Your task to perform on an android device: Open CNN.com Image 0: 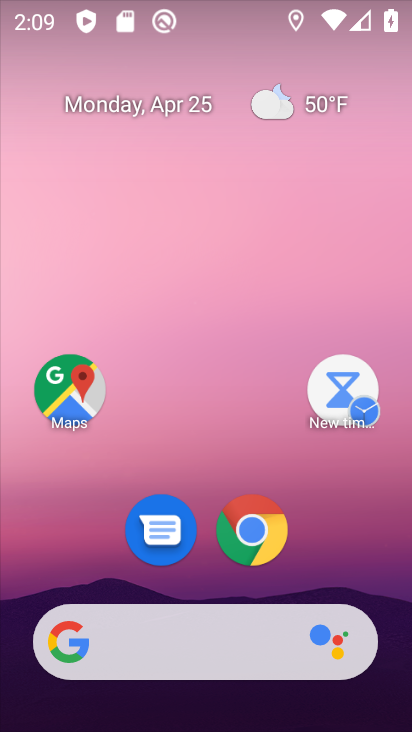
Step 0: drag from (201, 600) to (272, 12)
Your task to perform on an android device: Open CNN.com Image 1: 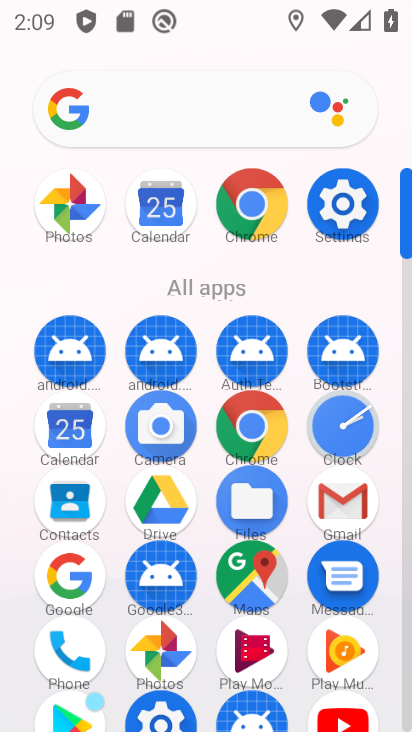
Step 1: click (244, 423)
Your task to perform on an android device: Open CNN.com Image 2: 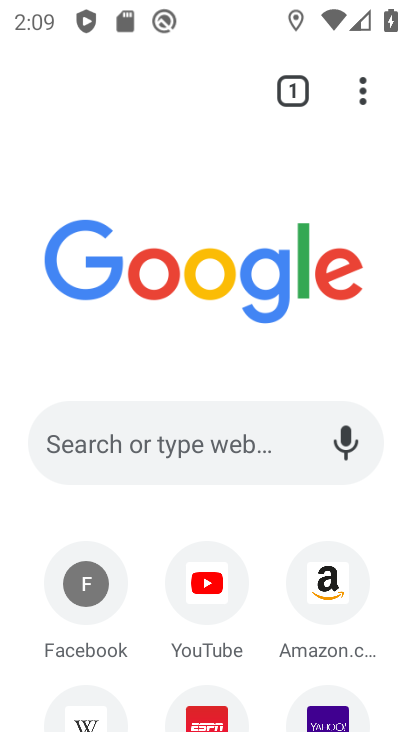
Step 2: click (188, 465)
Your task to perform on an android device: Open CNN.com Image 3: 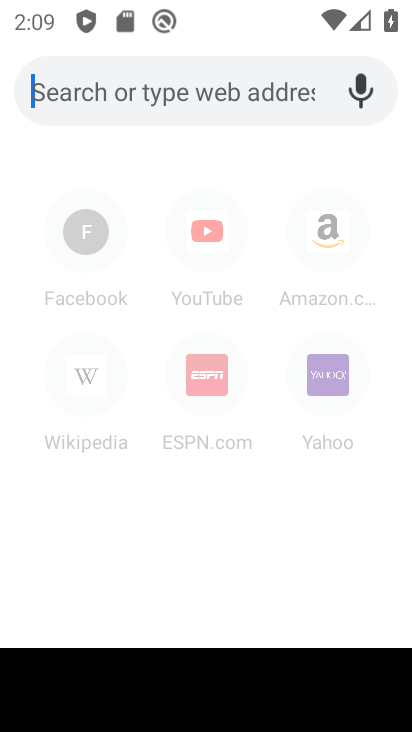
Step 3: type "cnn"
Your task to perform on an android device: Open CNN.com Image 4: 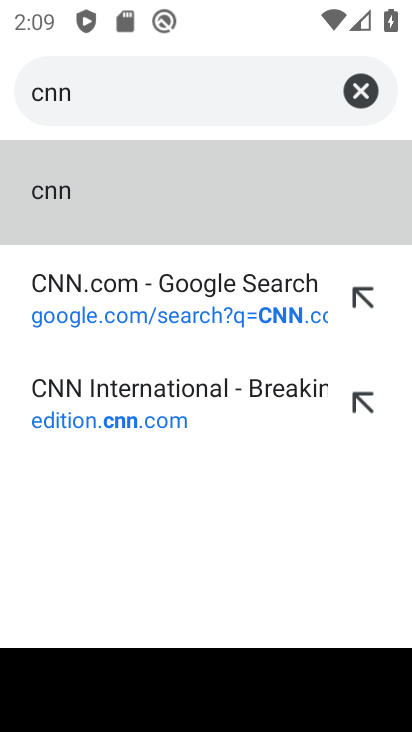
Step 4: click (207, 330)
Your task to perform on an android device: Open CNN.com Image 5: 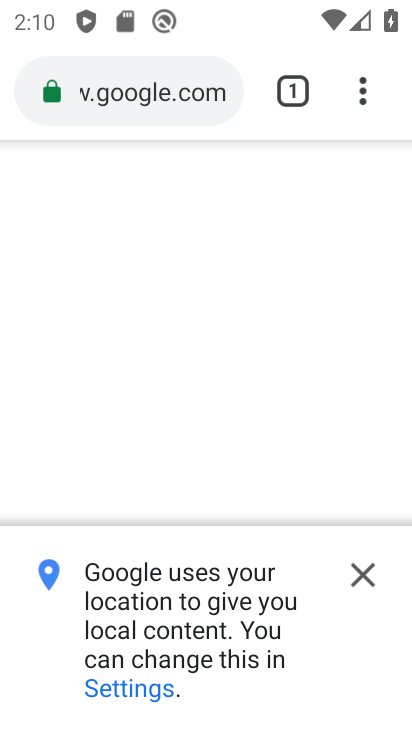
Step 5: click (360, 576)
Your task to perform on an android device: Open CNN.com Image 6: 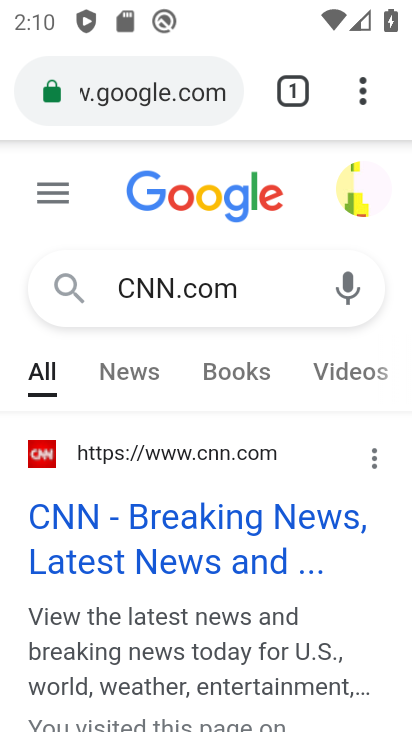
Step 6: click (243, 556)
Your task to perform on an android device: Open CNN.com Image 7: 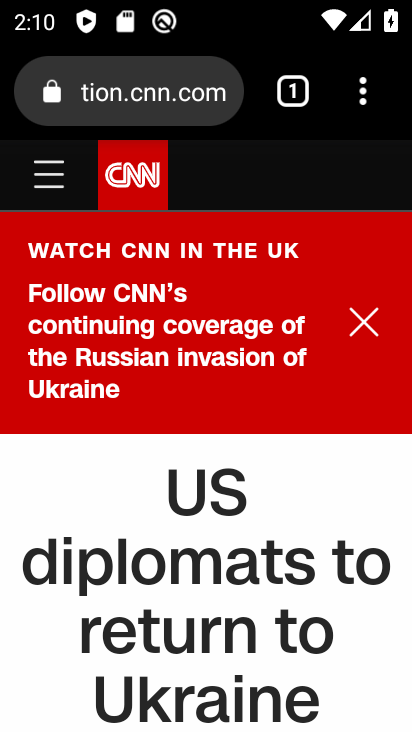
Step 7: task complete